Your task to perform on an android device: Open Chrome and go to the settings page Image 0: 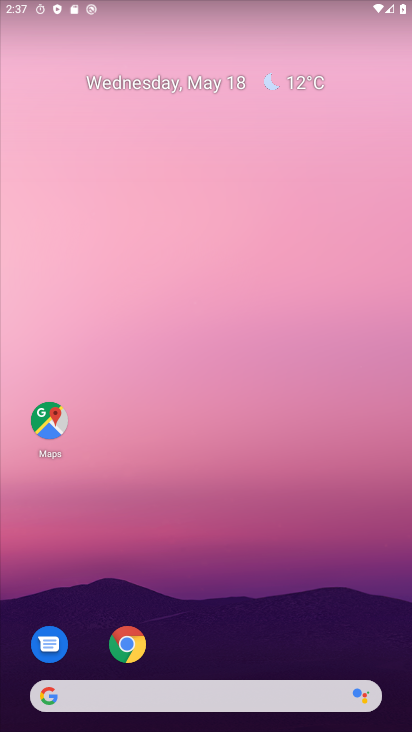
Step 0: click (128, 638)
Your task to perform on an android device: Open Chrome and go to the settings page Image 1: 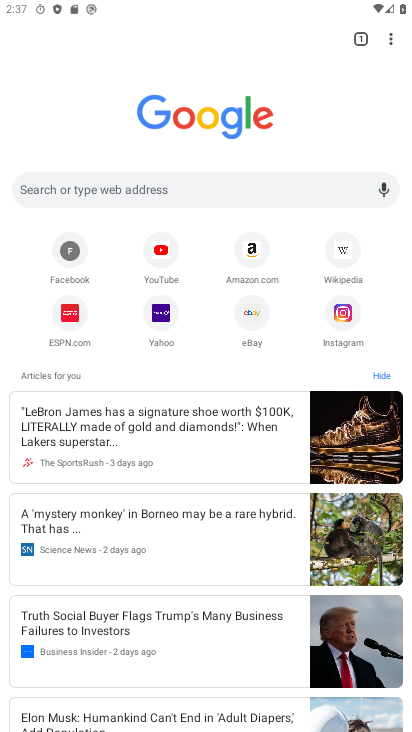
Step 1: click (393, 36)
Your task to perform on an android device: Open Chrome and go to the settings page Image 2: 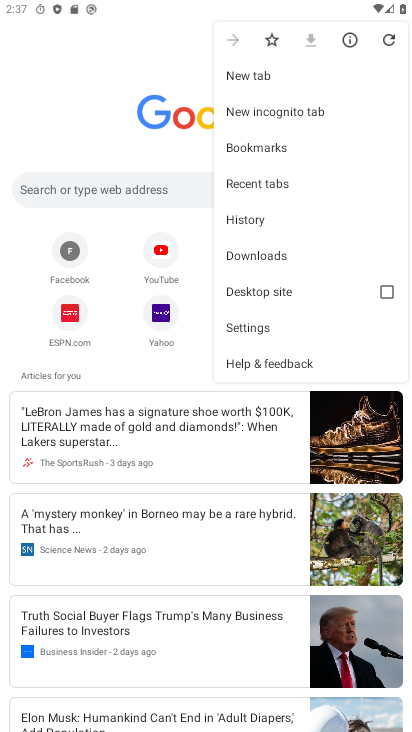
Step 2: click (256, 329)
Your task to perform on an android device: Open Chrome and go to the settings page Image 3: 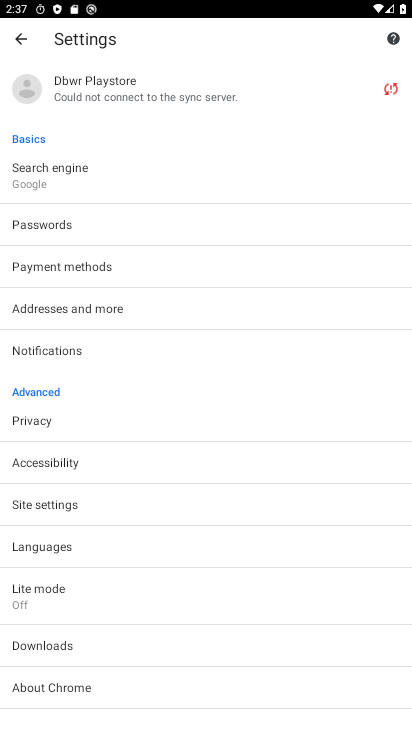
Step 3: task complete